Your task to perform on an android device: Open Chrome and go to settings Image 0: 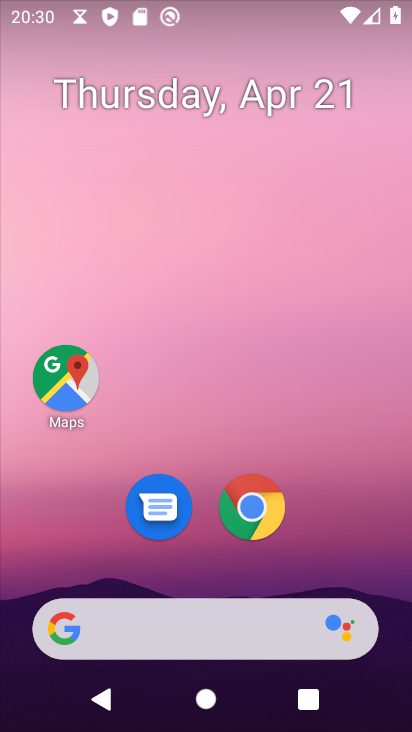
Step 0: click (248, 507)
Your task to perform on an android device: Open Chrome and go to settings Image 1: 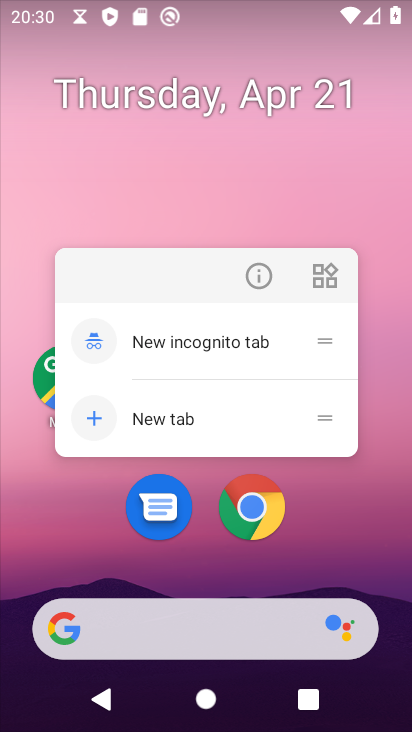
Step 1: click (254, 495)
Your task to perform on an android device: Open Chrome and go to settings Image 2: 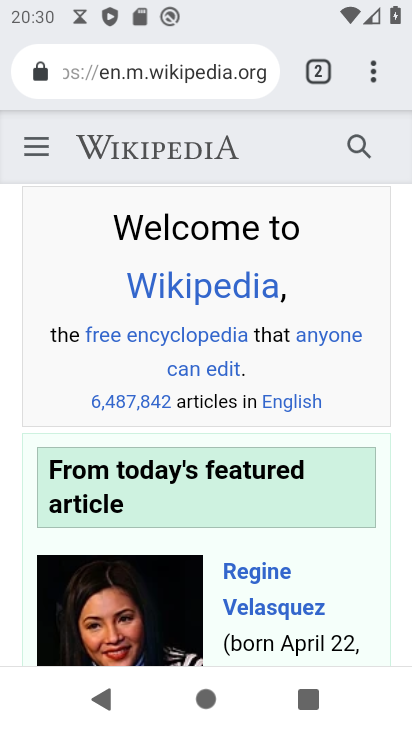
Step 2: task complete